Your task to perform on an android device: change text size in settings app Image 0: 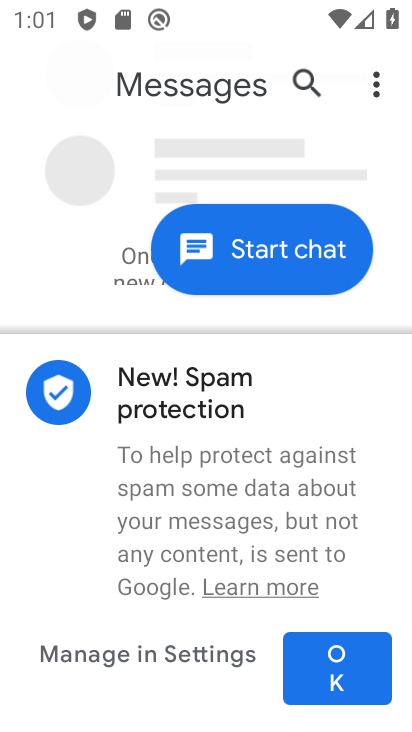
Step 0: press home button
Your task to perform on an android device: change text size in settings app Image 1: 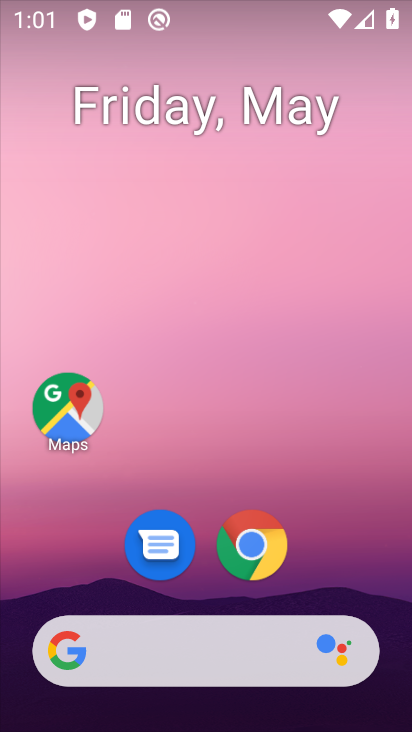
Step 1: drag from (346, 420) to (250, 14)
Your task to perform on an android device: change text size in settings app Image 2: 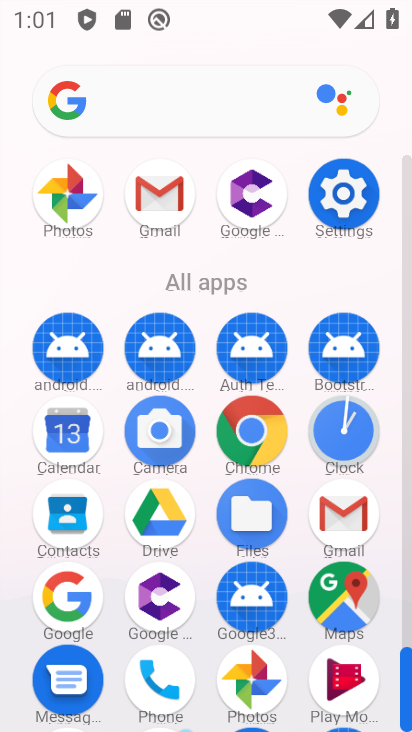
Step 2: click (349, 168)
Your task to perform on an android device: change text size in settings app Image 3: 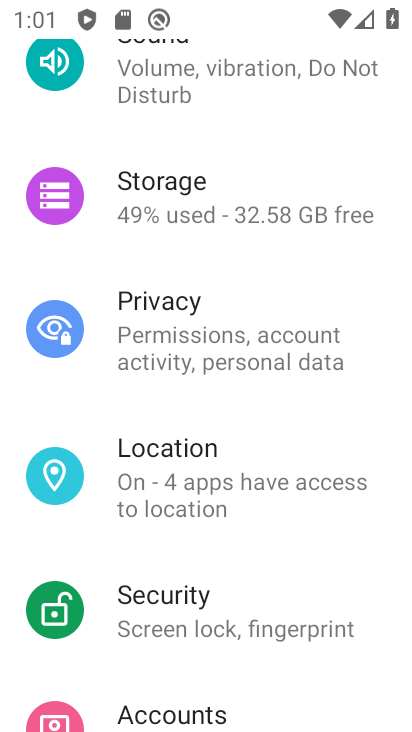
Step 3: drag from (244, 337) to (270, 720)
Your task to perform on an android device: change text size in settings app Image 4: 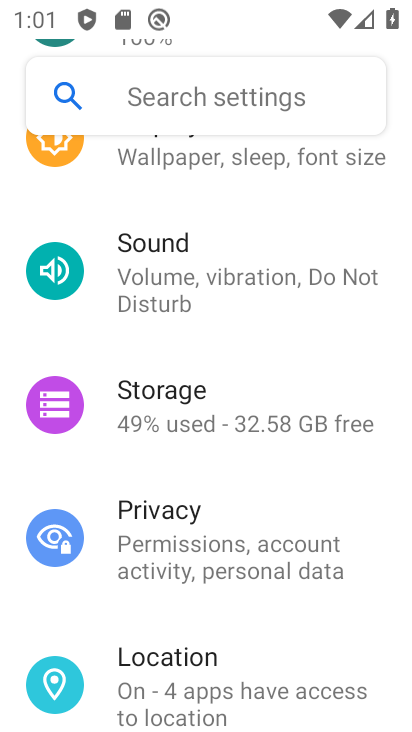
Step 4: click (257, 163)
Your task to perform on an android device: change text size in settings app Image 5: 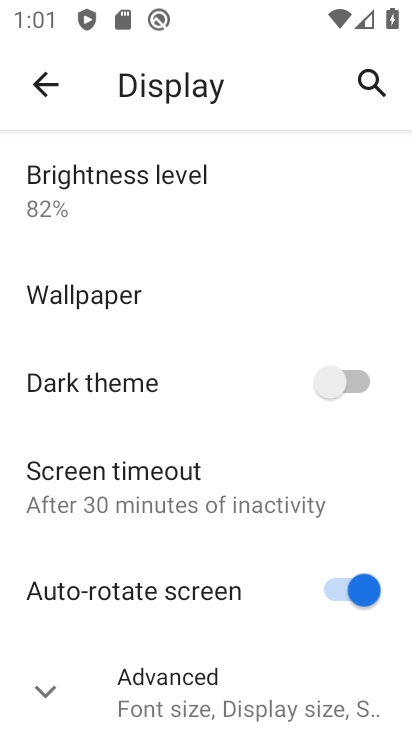
Step 5: drag from (277, 579) to (202, 309)
Your task to perform on an android device: change text size in settings app Image 6: 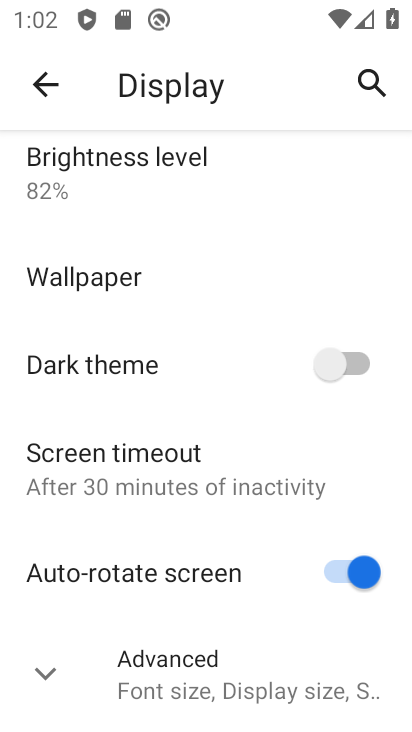
Step 6: drag from (276, 514) to (209, 359)
Your task to perform on an android device: change text size in settings app Image 7: 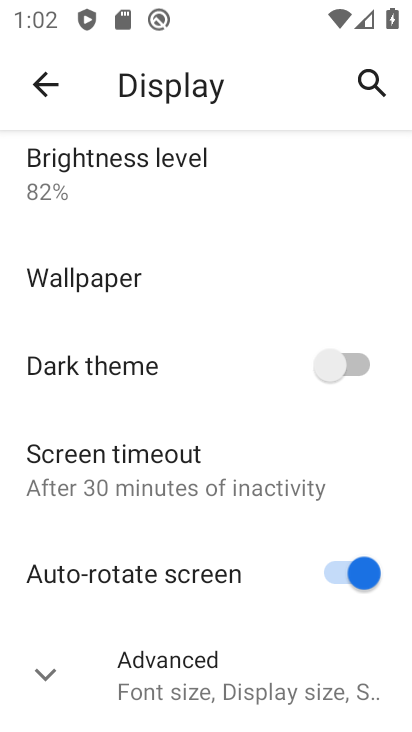
Step 7: click (247, 656)
Your task to perform on an android device: change text size in settings app Image 8: 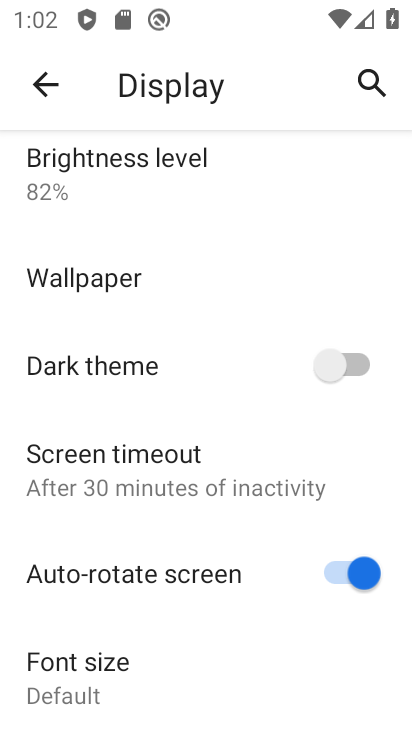
Step 8: drag from (261, 674) to (212, 445)
Your task to perform on an android device: change text size in settings app Image 9: 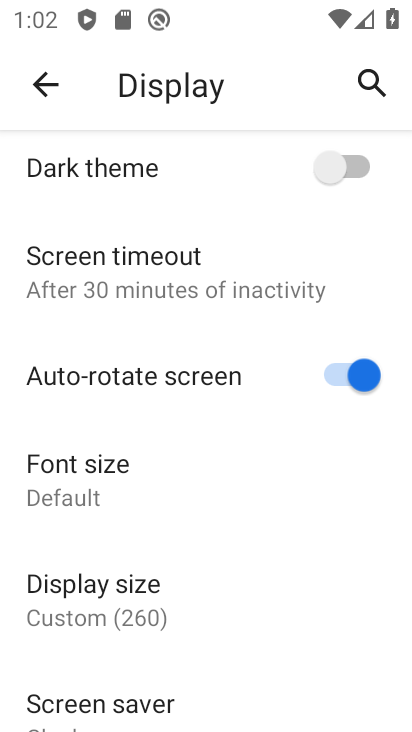
Step 9: drag from (162, 294) to (215, 489)
Your task to perform on an android device: change text size in settings app Image 10: 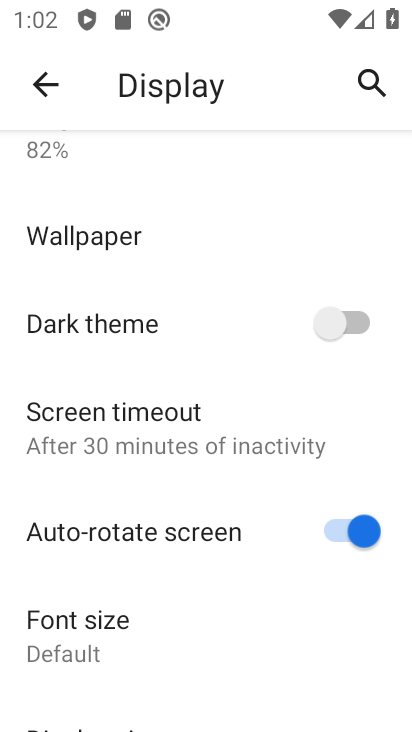
Step 10: click (196, 630)
Your task to perform on an android device: change text size in settings app Image 11: 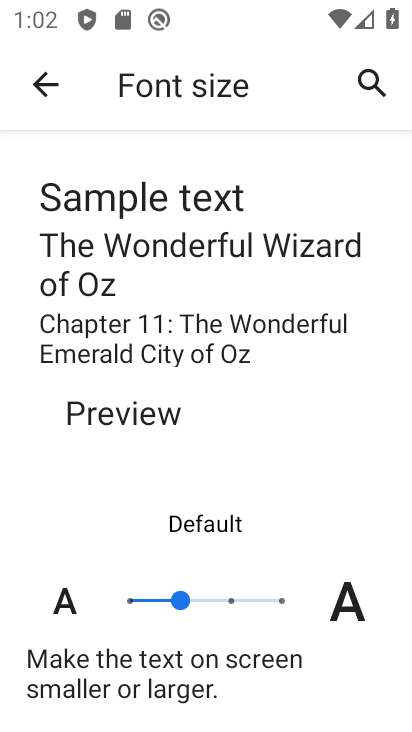
Step 11: task complete